Your task to perform on an android device: What's the weather going to be this weekend? Image 0: 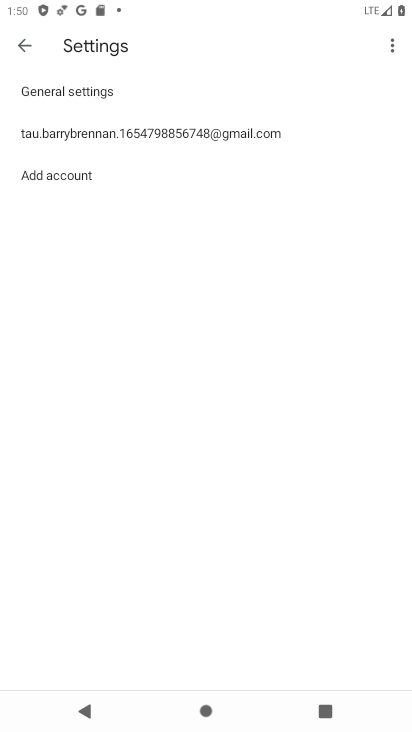
Step 0: press home button
Your task to perform on an android device: What's the weather going to be this weekend? Image 1: 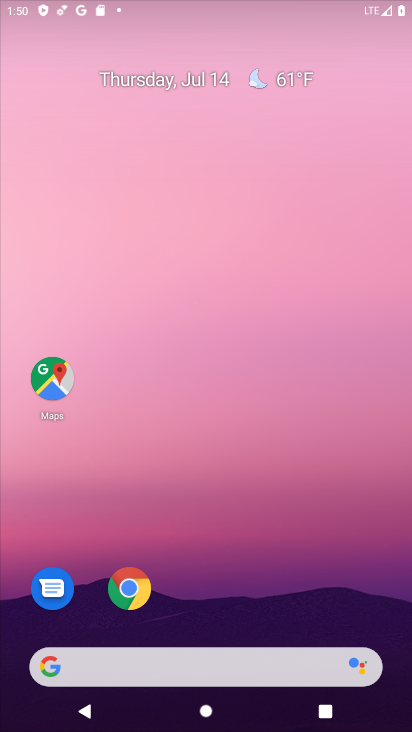
Step 1: drag from (227, 620) to (279, 144)
Your task to perform on an android device: What's the weather going to be this weekend? Image 2: 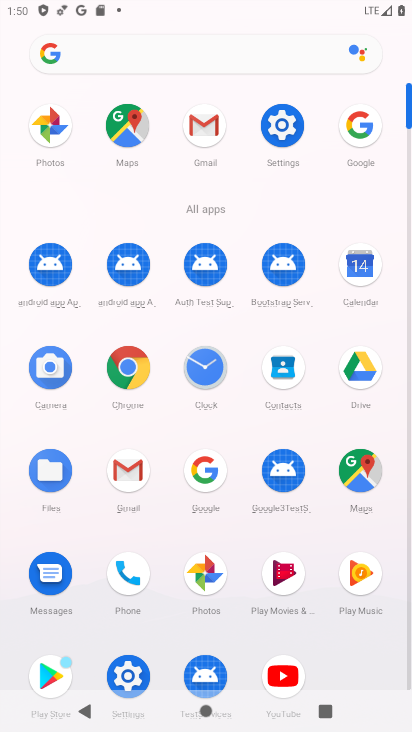
Step 2: click (361, 123)
Your task to perform on an android device: What's the weather going to be this weekend? Image 3: 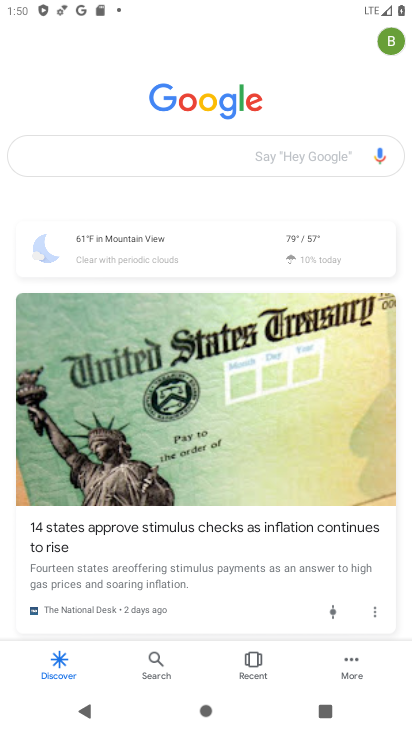
Step 3: click (160, 162)
Your task to perform on an android device: What's the weather going to be this weekend? Image 4: 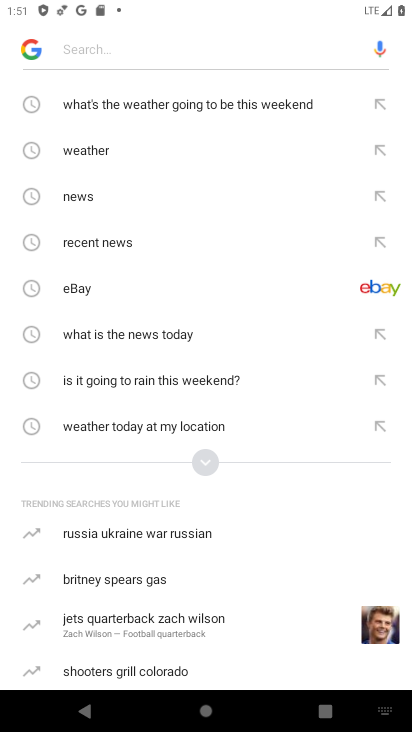
Step 4: click (215, 106)
Your task to perform on an android device: What's the weather going to be this weekend? Image 5: 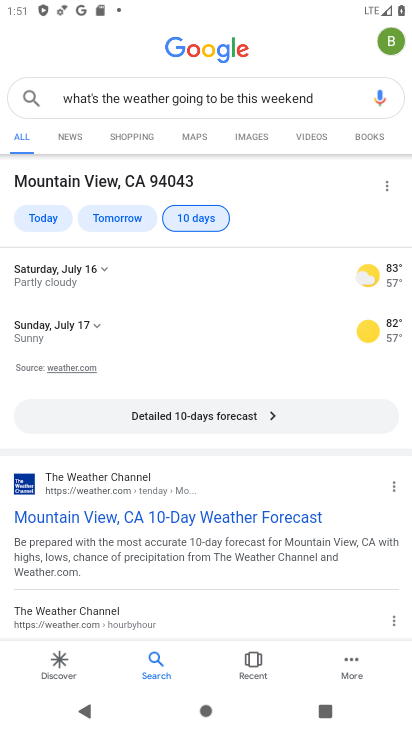
Step 5: task complete